Your task to perform on an android device: Open the phone app and click the voicemail tab. Image 0: 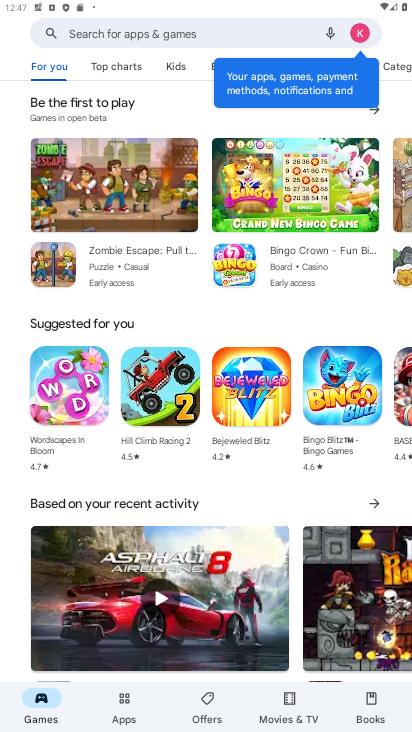
Step 0: press home button
Your task to perform on an android device: Open the phone app and click the voicemail tab. Image 1: 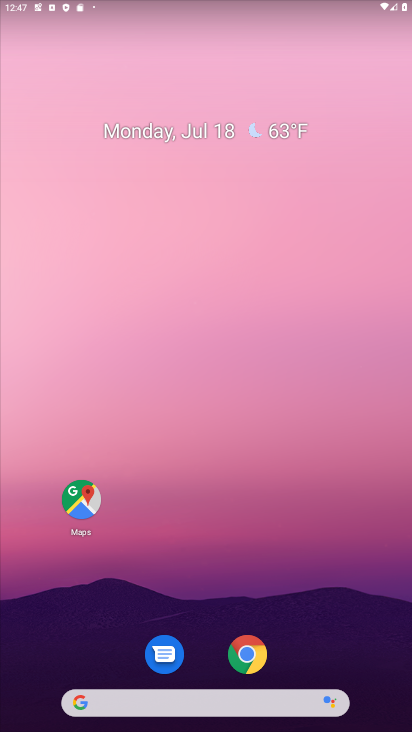
Step 1: drag from (218, 607) to (258, 30)
Your task to perform on an android device: Open the phone app and click the voicemail tab. Image 2: 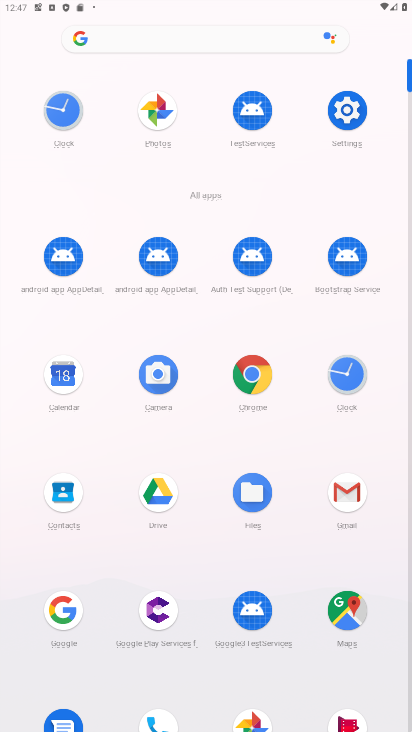
Step 2: drag from (204, 540) to (214, 217)
Your task to perform on an android device: Open the phone app and click the voicemail tab. Image 3: 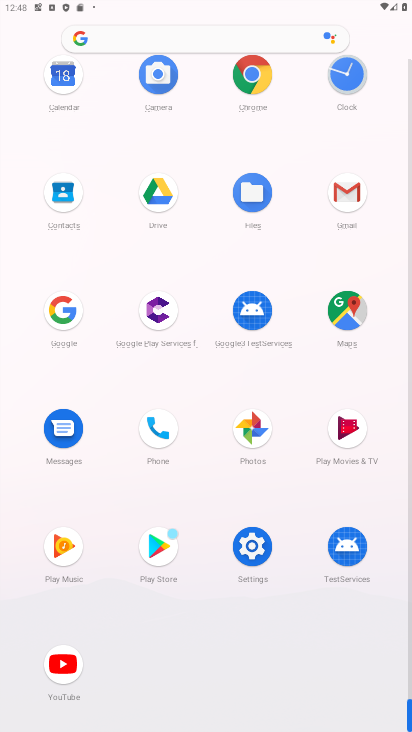
Step 3: click (157, 425)
Your task to perform on an android device: Open the phone app and click the voicemail tab. Image 4: 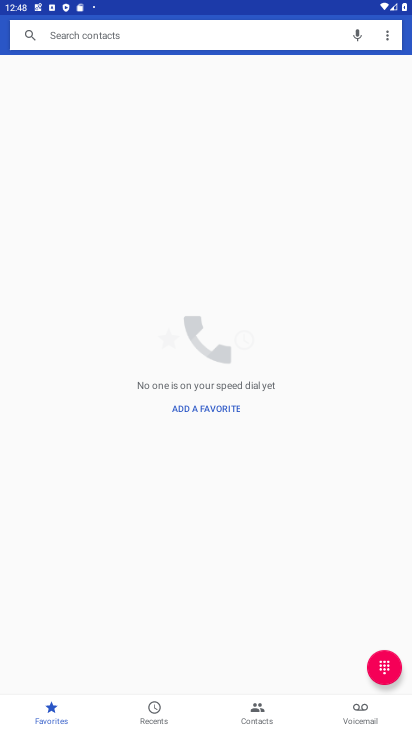
Step 4: click (357, 702)
Your task to perform on an android device: Open the phone app and click the voicemail tab. Image 5: 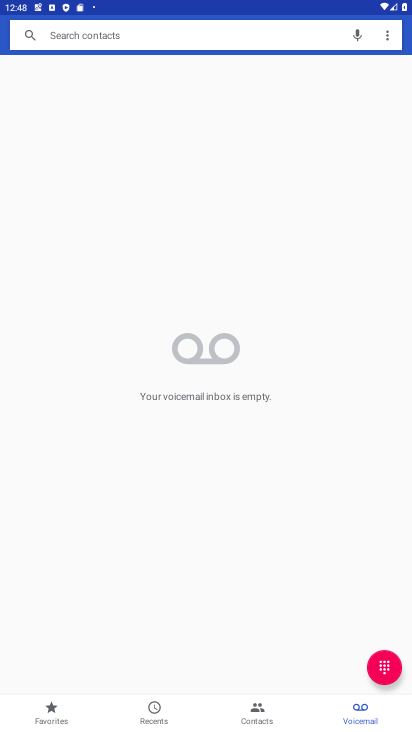
Step 5: task complete